Your task to perform on an android device: add a contact in the contacts app Image 0: 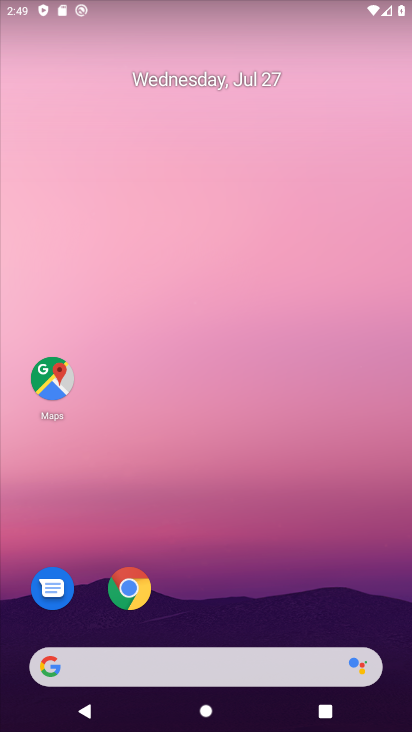
Step 0: drag from (200, 606) to (168, 35)
Your task to perform on an android device: add a contact in the contacts app Image 1: 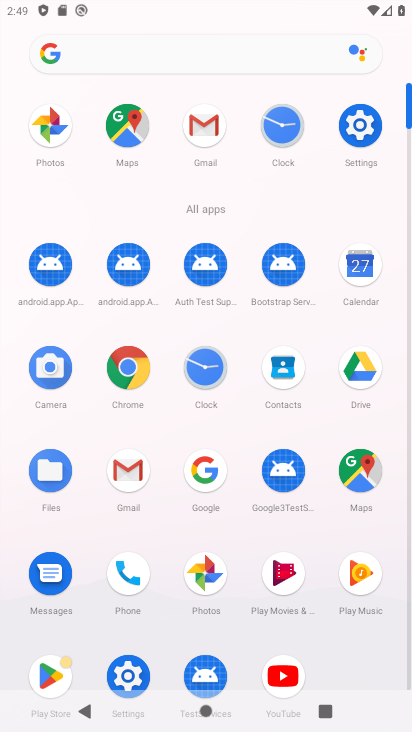
Step 1: click (281, 366)
Your task to perform on an android device: add a contact in the contacts app Image 2: 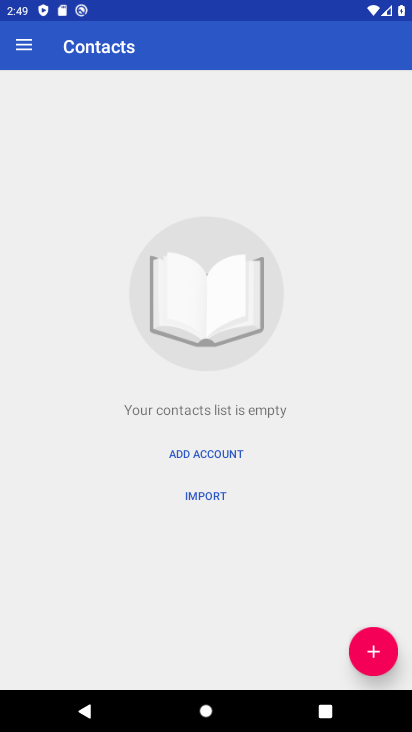
Step 2: click (368, 638)
Your task to perform on an android device: add a contact in the contacts app Image 3: 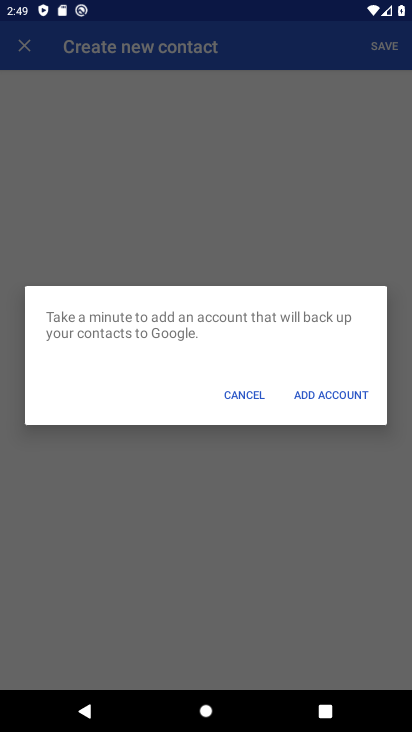
Step 3: click (240, 400)
Your task to perform on an android device: add a contact in the contacts app Image 4: 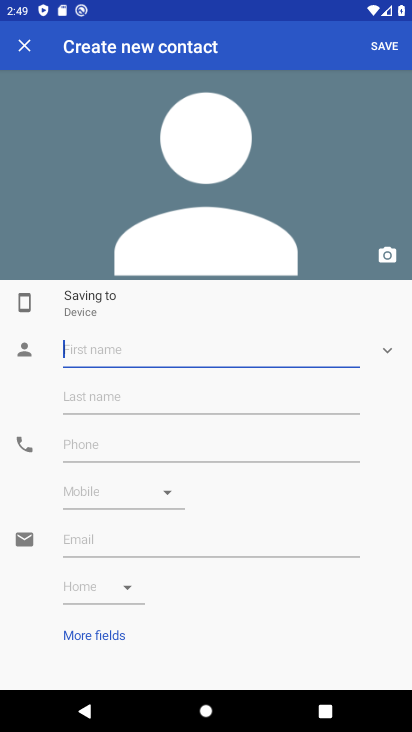
Step 4: type "fgthg"
Your task to perform on an android device: add a contact in the contacts app Image 5: 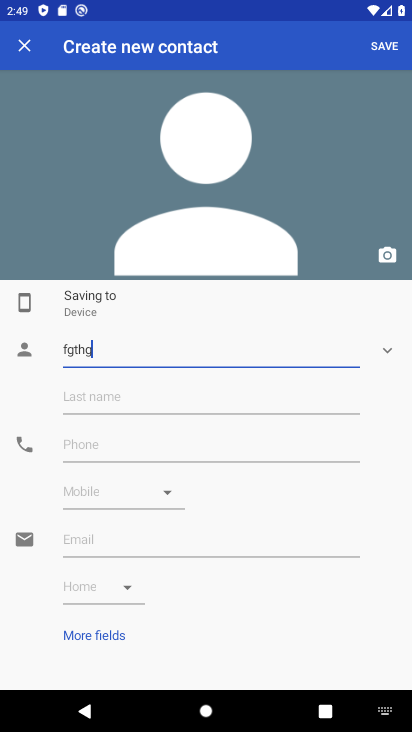
Step 5: click (393, 52)
Your task to perform on an android device: add a contact in the contacts app Image 6: 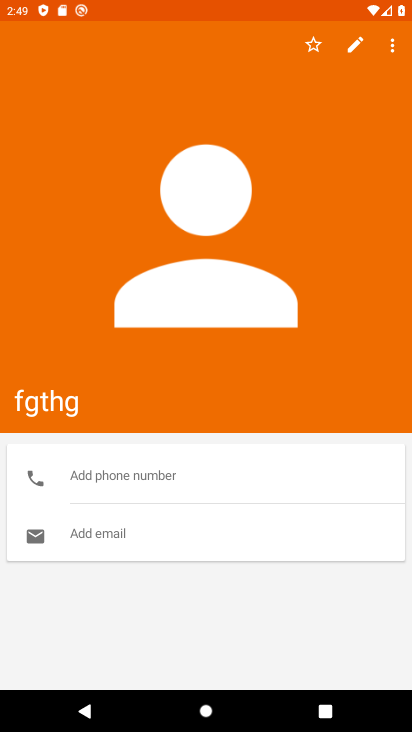
Step 6: task complete